Your task to perform on an android device: Search for a dining table on crateandbarrel.com Image 0: 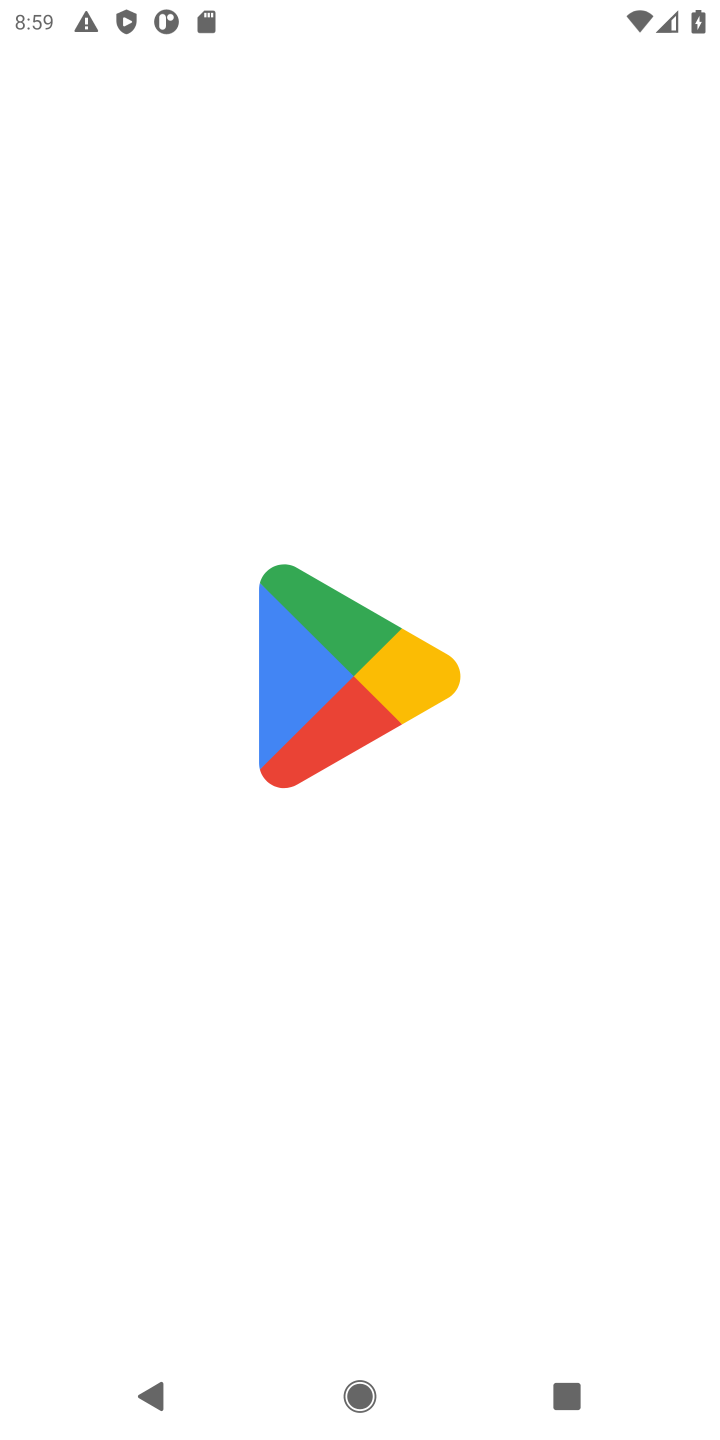
Step 0: press home button
Your task to perform on an android device: Search for a dining table on crateandbarrel.com Image 1: 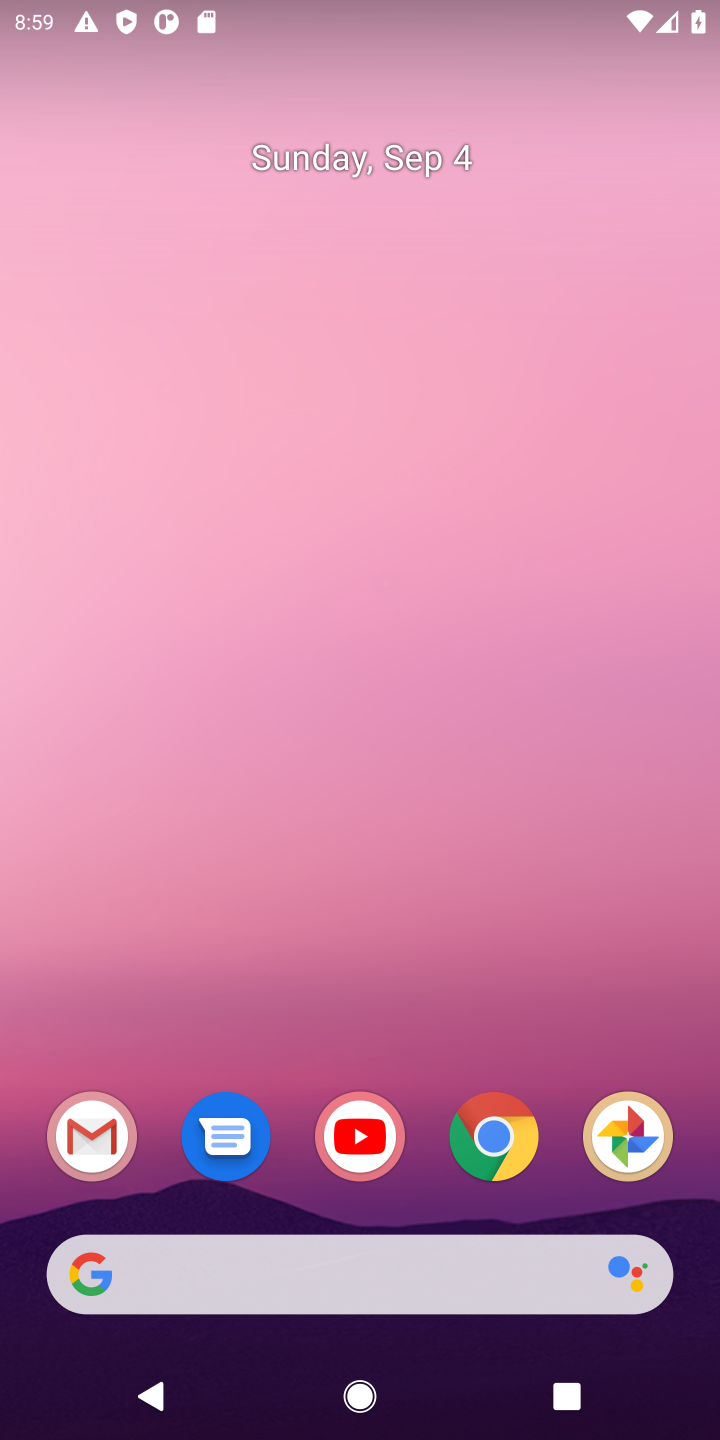
Step 1: drag from (346, 290) to (364, 156)
Your task to perform on an android device: Search for a dining table on crateandbarrel.com Image 2: 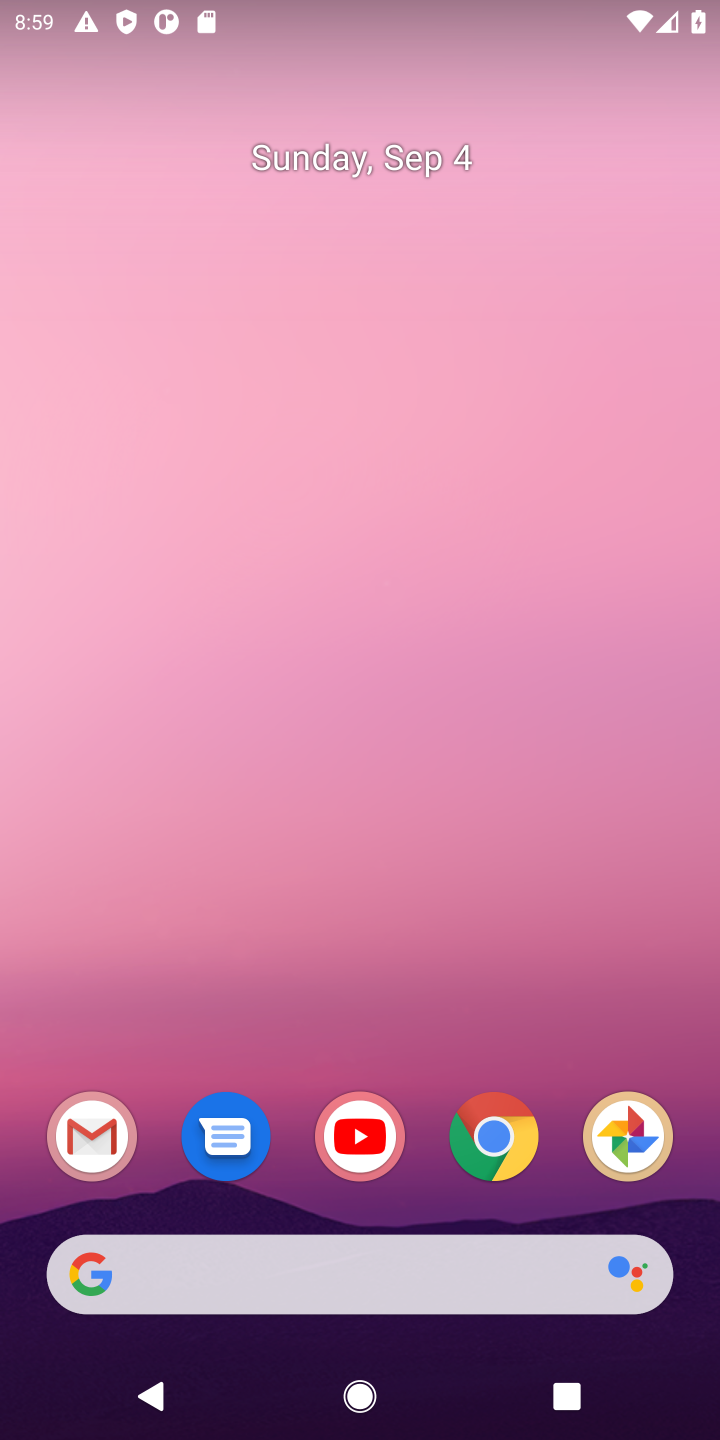
Step 2: click (272, 314)
Your task to perform on an android device: Search for a dining table on crateandbarrel.com Image 3: 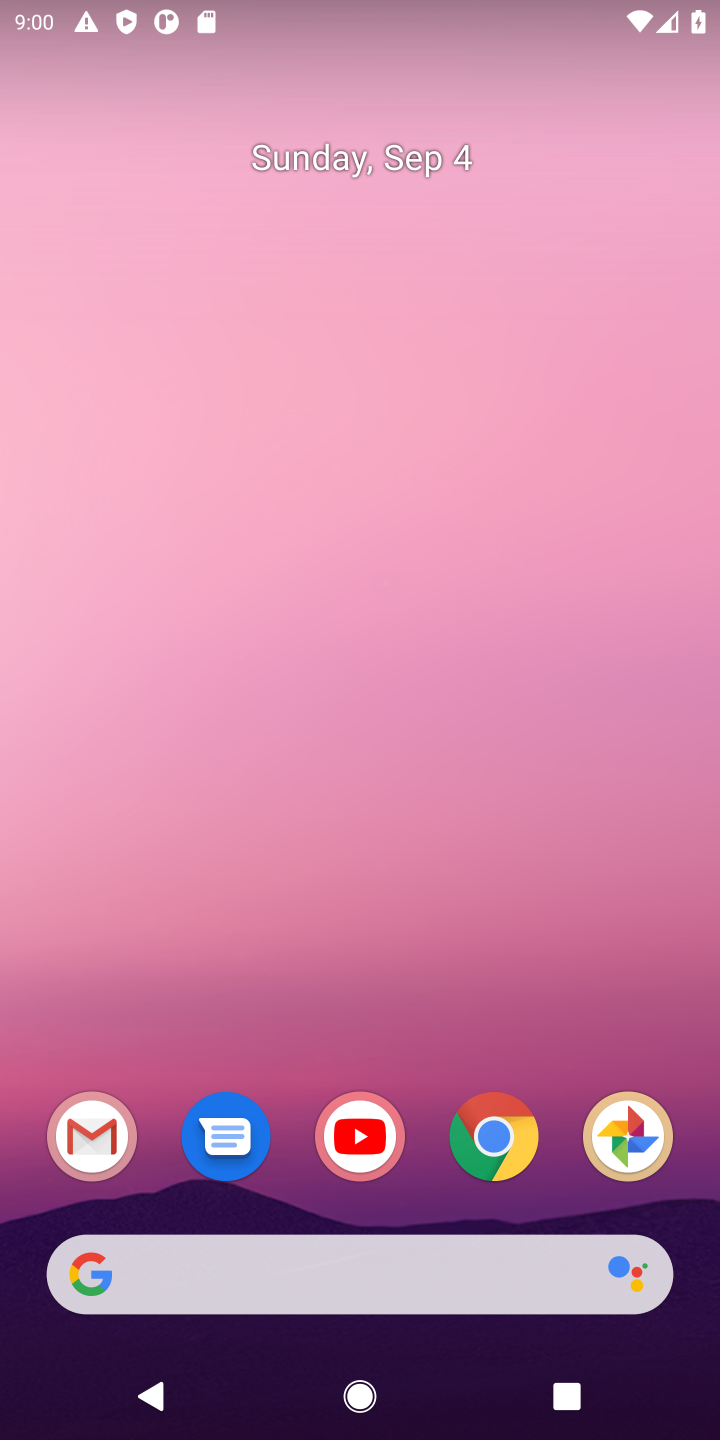
Step 3: click (401, 1216)
Your task to perform on an android device: Search for a dining table on crateandbarrel.com Image 4: 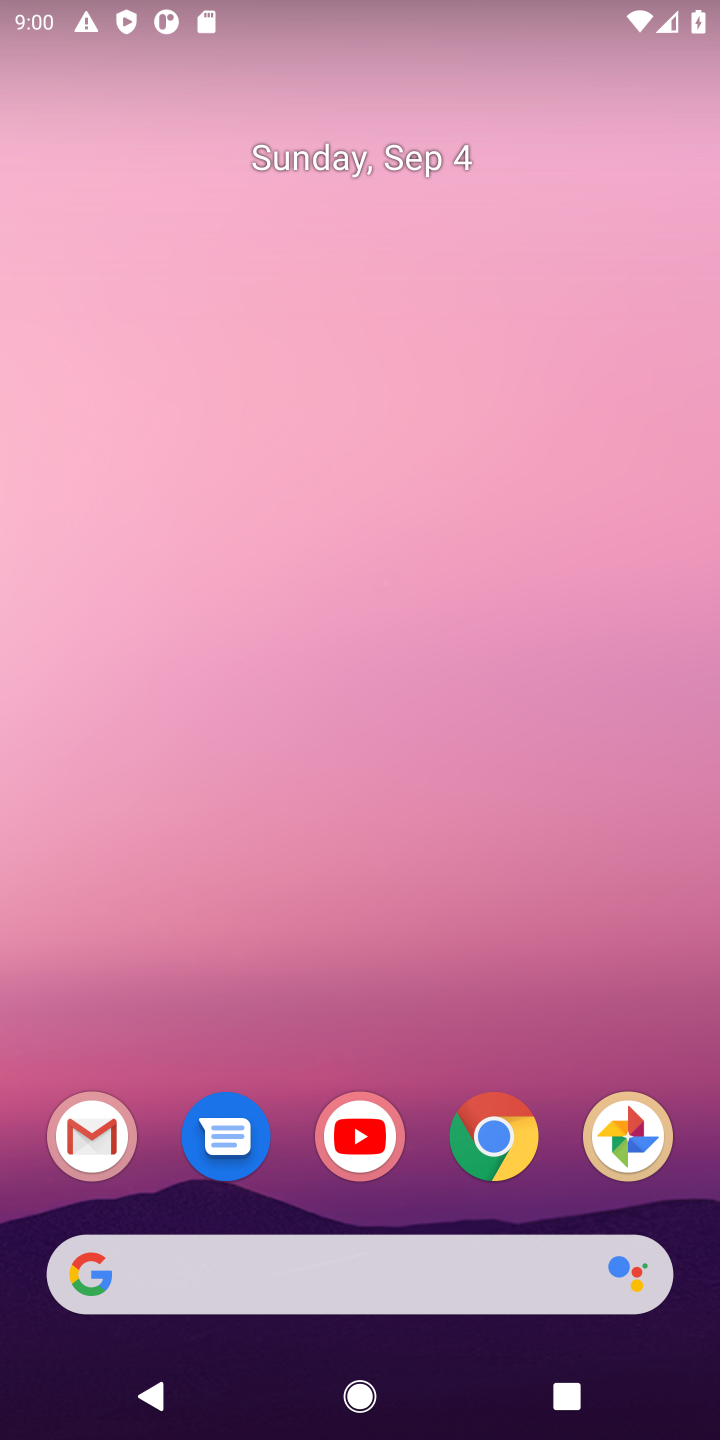
Step 4: drag from (406, 1199) to (478, 302)
Your task to perform on an android device: Search for a dining table on crateandbarrel.com Image 5: 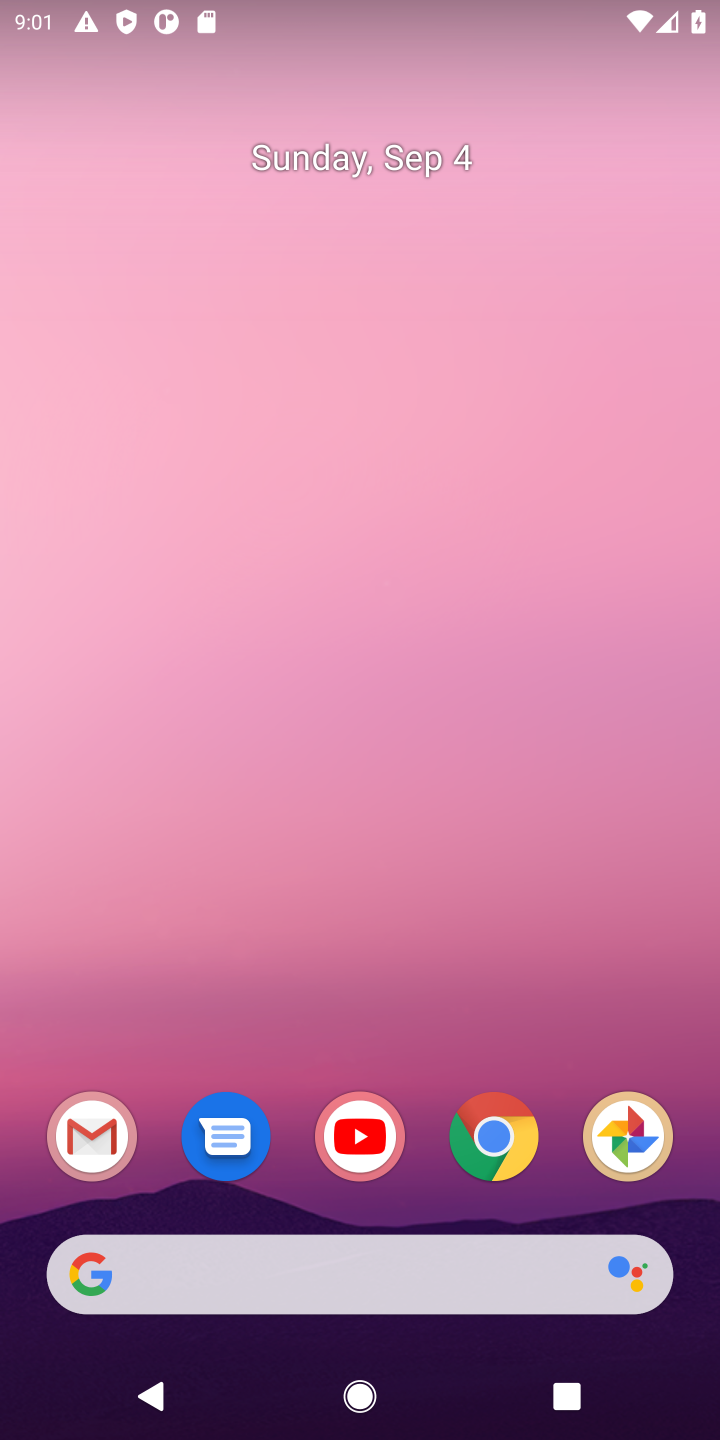
Step 5: drag from (303, 1126) to (378, 294)
Your task to perform on an android device: Search for a dining table on crateandbarrel.com Image 6: 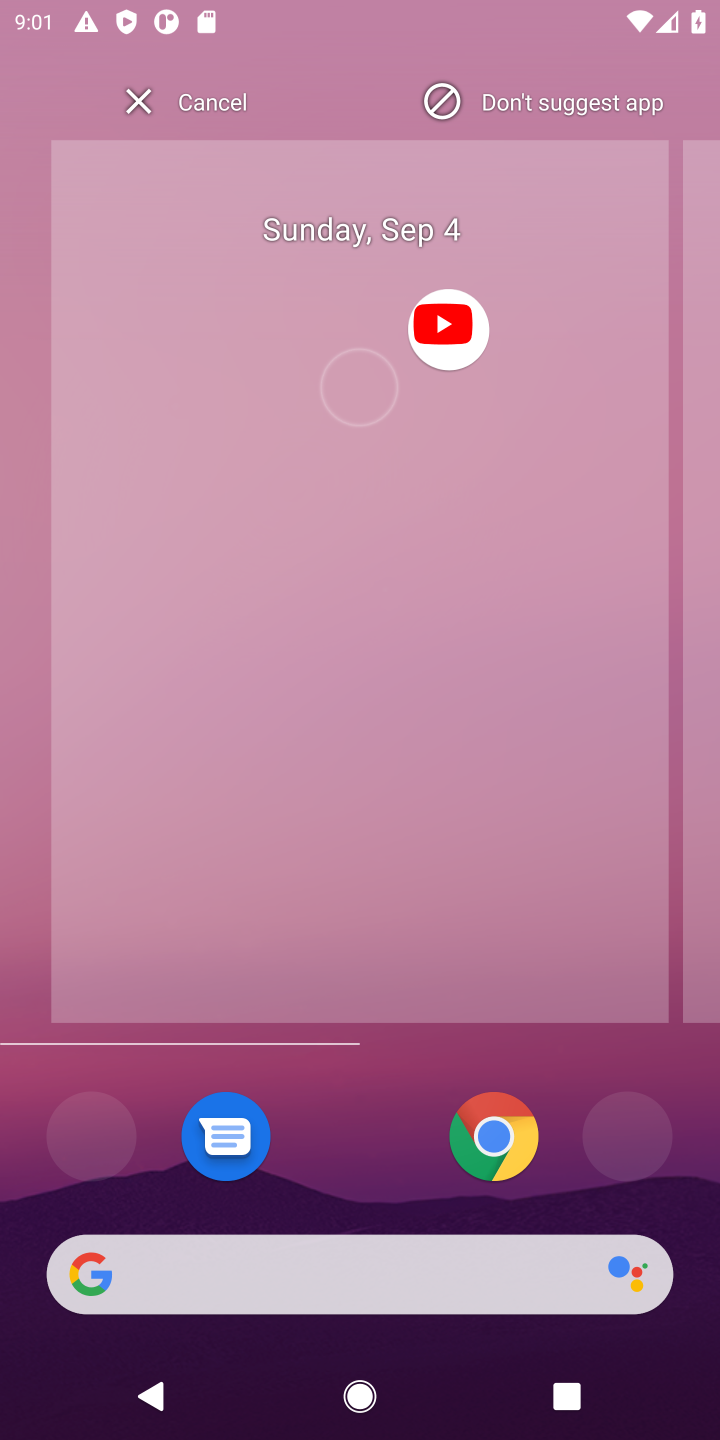
Step 6: click (135, 107)
Your task to perform on an android device: Search for a dining table on crateandbarrel.com Image 7: 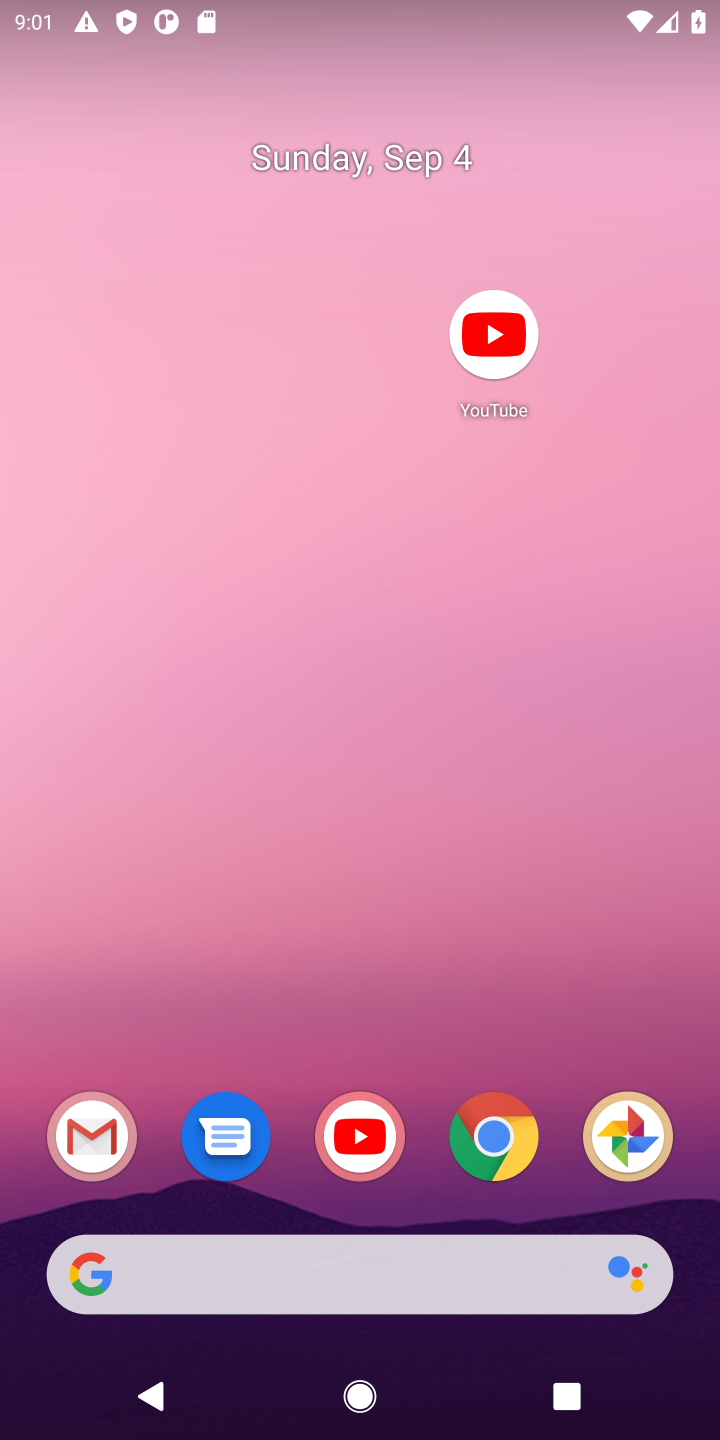
Step 7: click (416, 19)
Your task to perform on an android device: Search for a dining table on crateandbarrel.com Image 8: 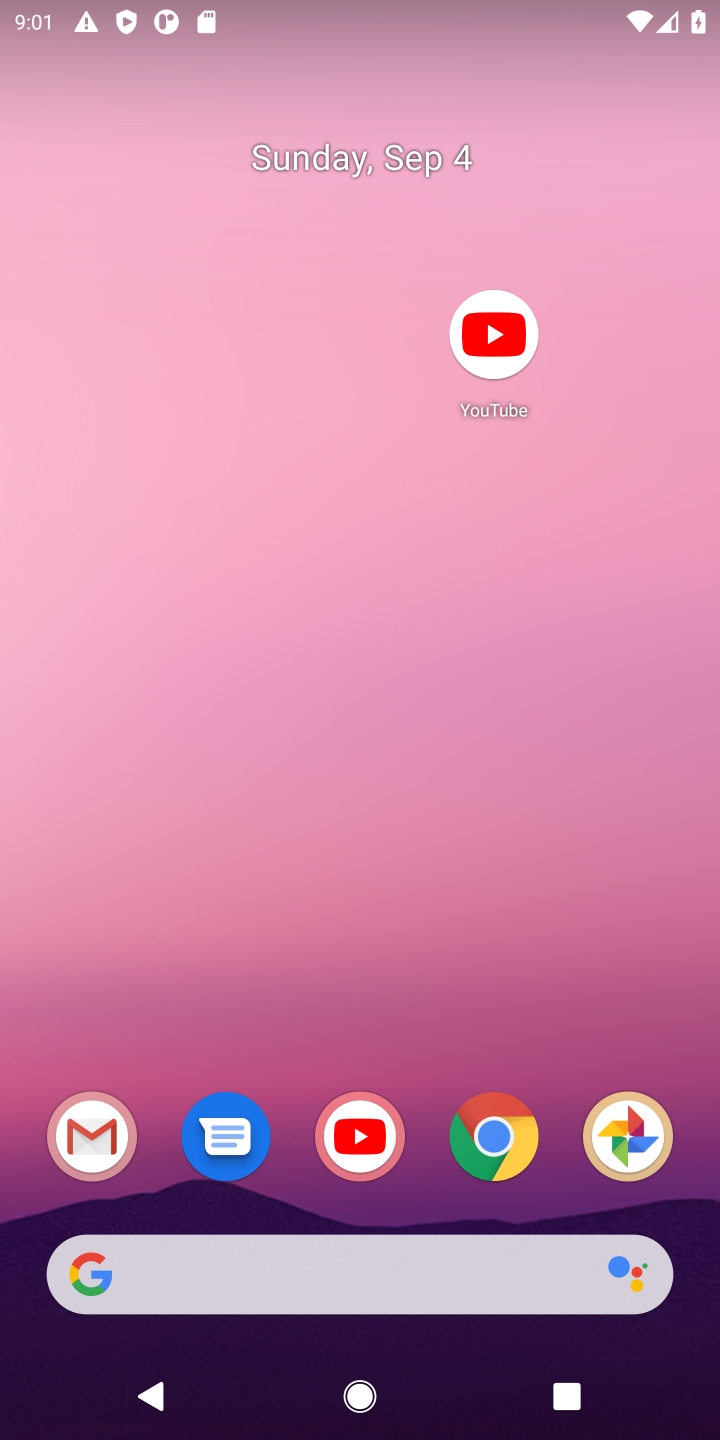
Step 8: click (348, 1269)
Your task to perform on an android device: Search for a dining table on crateandbarrel.com Image 9: 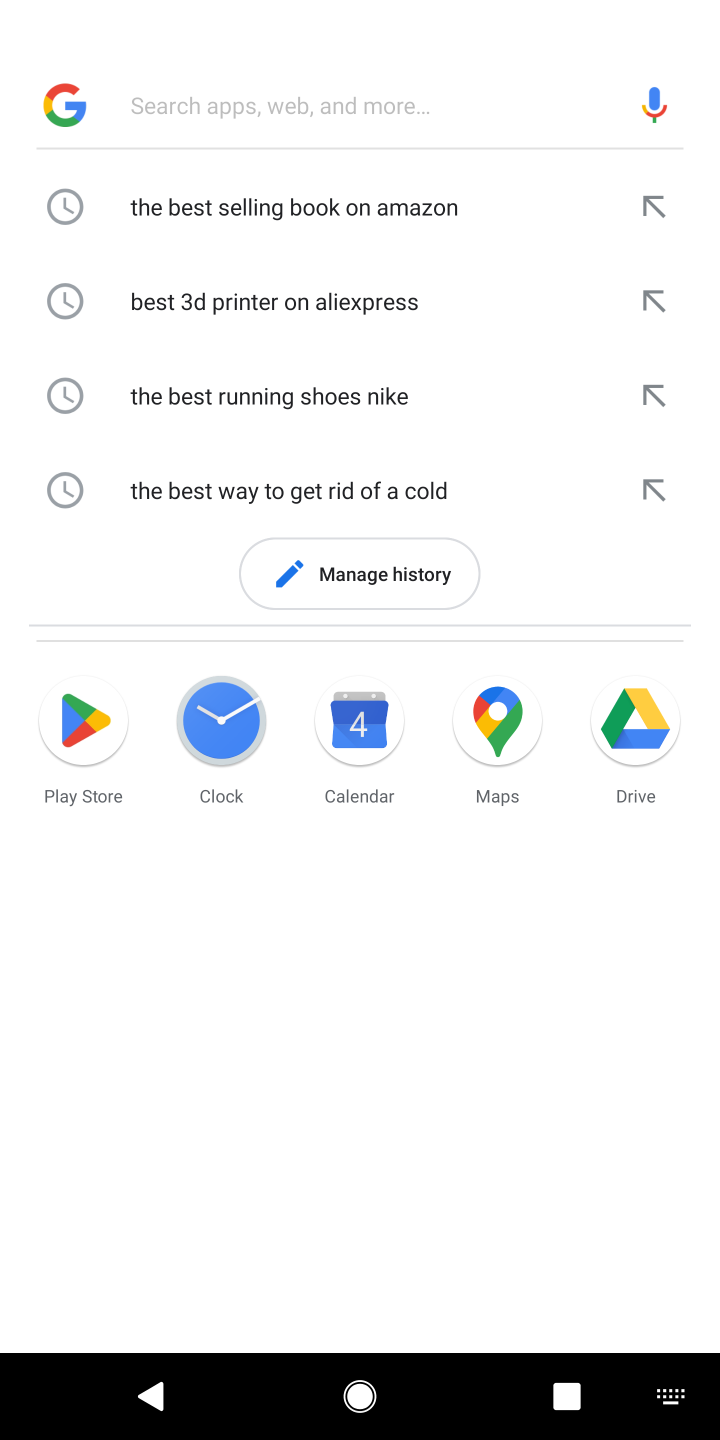
Step 9: type "a dining table on crateandbarrel.com"
Your task to perform on an android device: Search for a dining table on crateandbarrel.com Image 10: 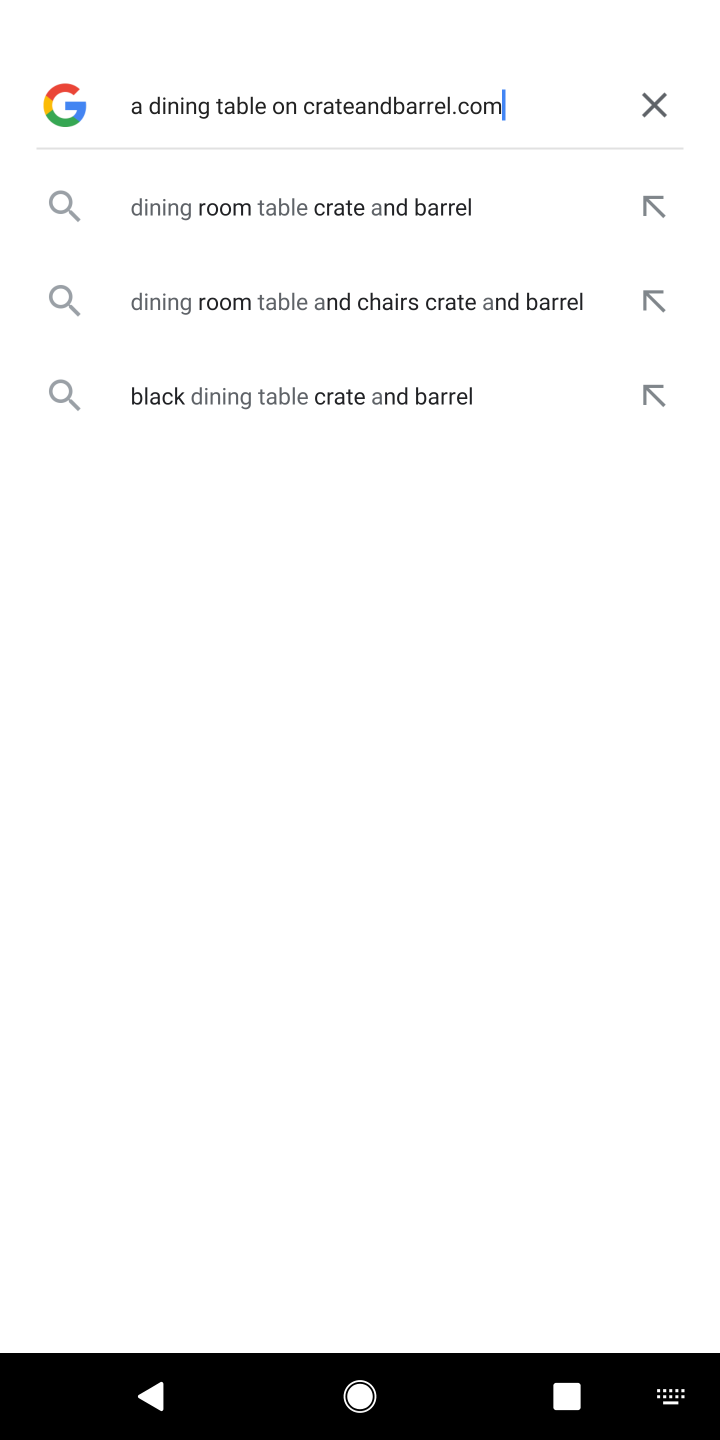
Step 10: click (384, 193)
Your task to perform on an android device: Search for a dining table on crateandbarrel.com Image 11: 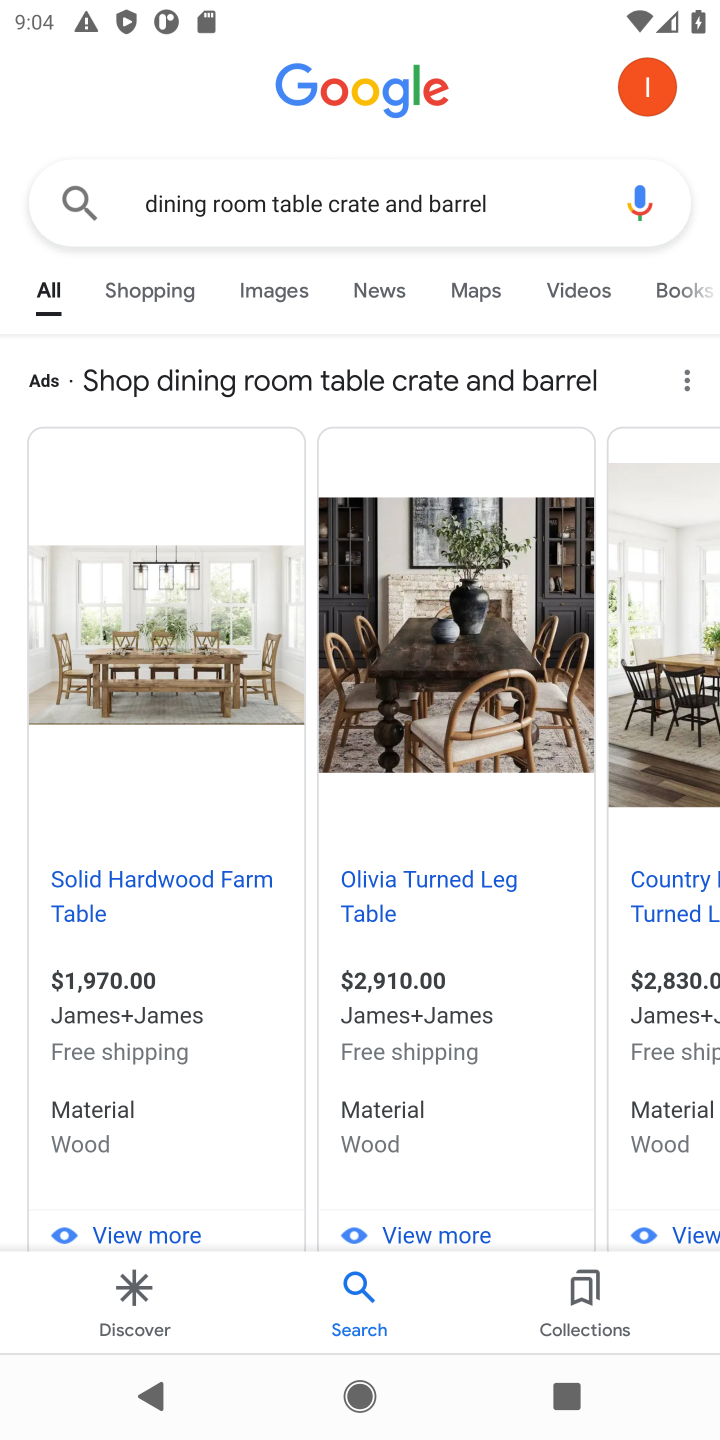
Step 11: task complete